Your task to perform on an android device: Open Wikipedia Image 0: 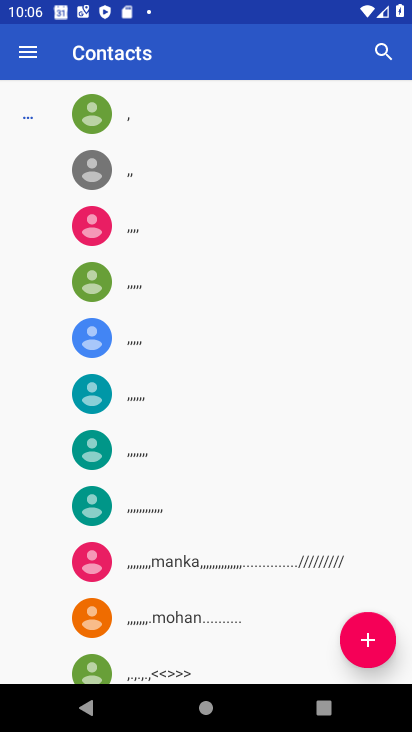
Step 0: press back button
Your task to perform on an android device: Open Wikipedia Image 1: 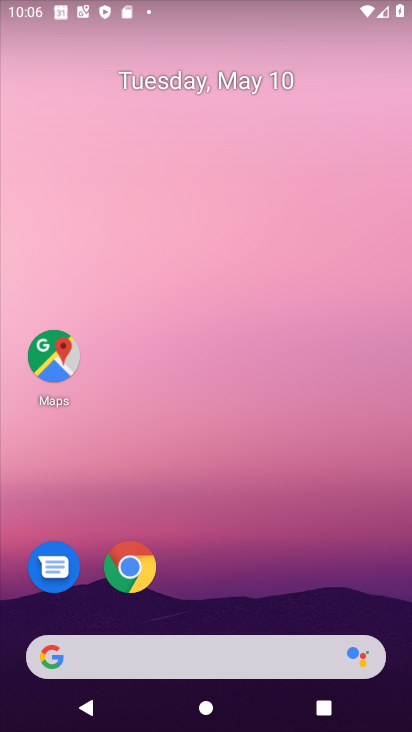
Step 1: click (135, 568)
Your task to perform on an android device: Open Wikipedia Image 2: 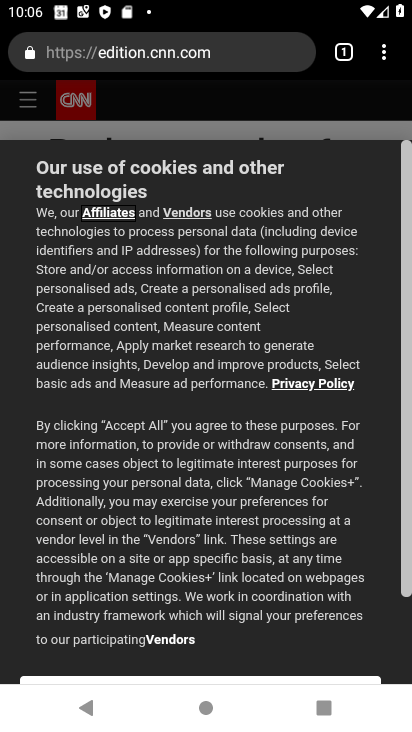
Step 2: click (346, 51)
Your task to perform on an android device: Open Wikipedia Image 3: 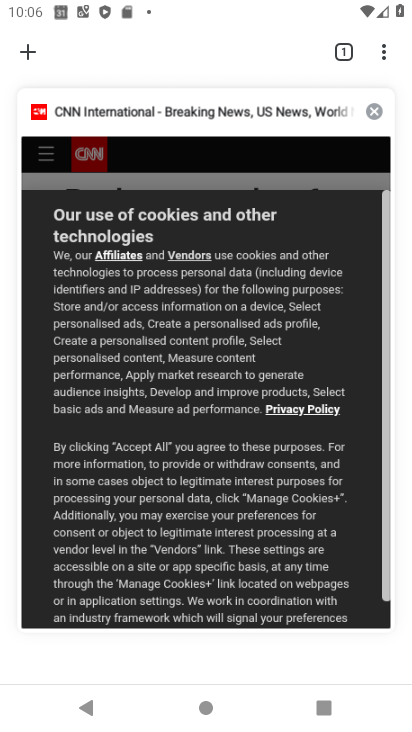
Step 3: click (25, 50)
Your task to perform on an android device: Open Wikipedia Image 4: 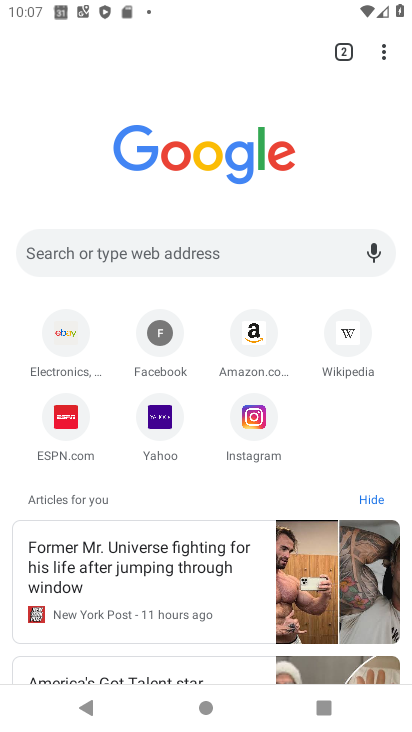
Step 4: click (341, 330)
Your task to perform on an android device: Open Wikipedia Image 5: 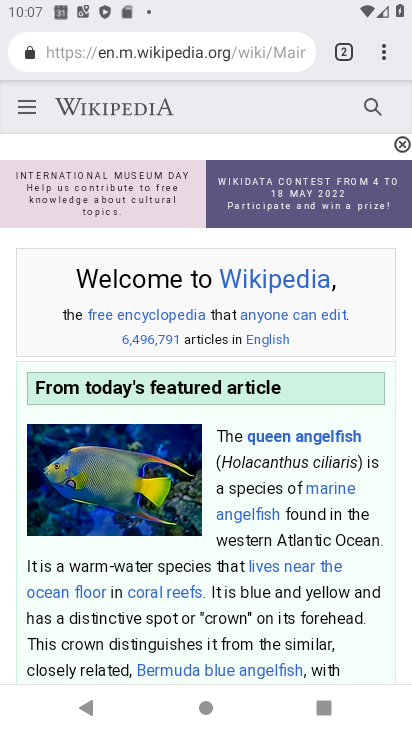
Step 5: task complete